Your task to perform on an android device: allow notifications from all sites in the chrome app Image 0: 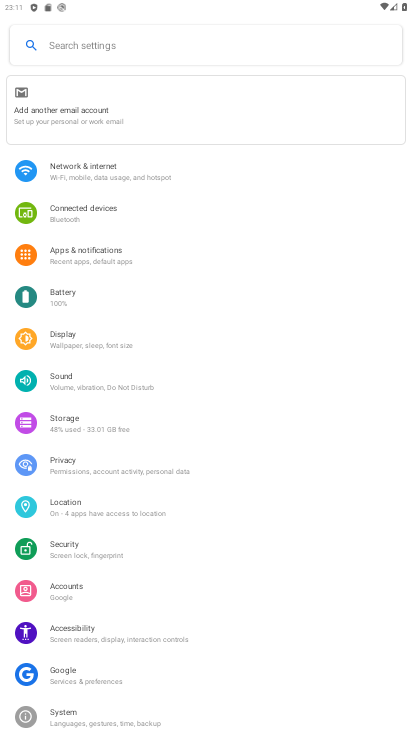
Step 0: press home button
Your task to perform on an android device: allow notifications from all sites in the chrome app Image 1: 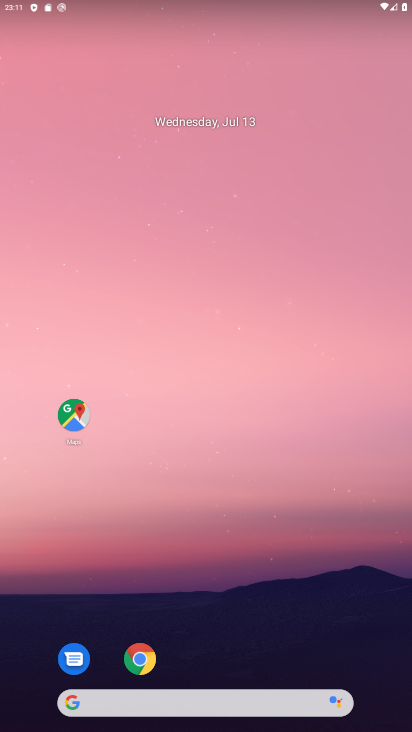
Step 1: click (135, 655)
Your task to perform on an android device: allow notifications from all sites in the chrome app Image 2: 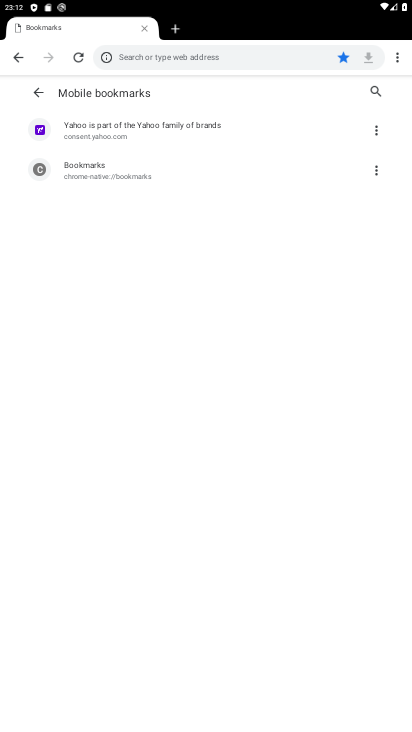
Step 2: click (396, 61)
Your task to perform on an android device: allow notifications from all sites in the chrome app Image 3: 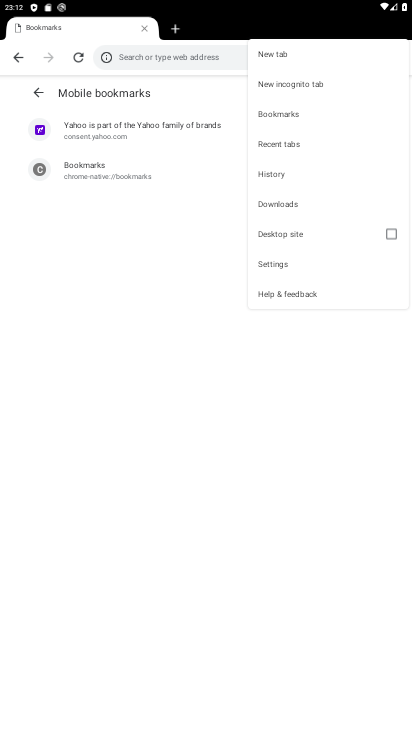
Step 3: click (277, 257)
Your task to perform on an android device: allow notifications from all sites in the chrome app Image 4: 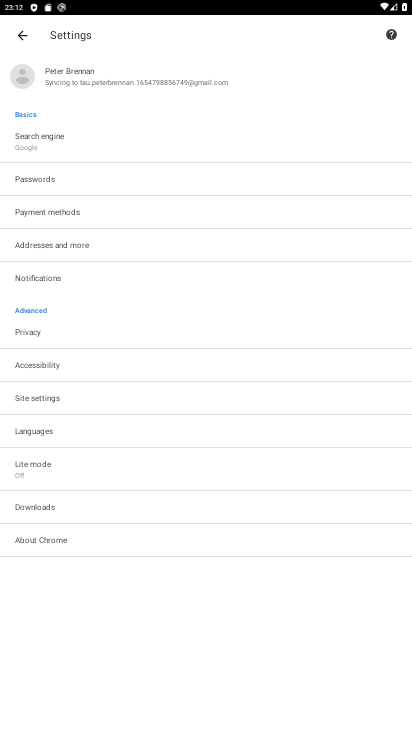
Step 4: click (30, 394)
Your task to perform on an android device: allow notifications from all sites in the chrome app Image 5: 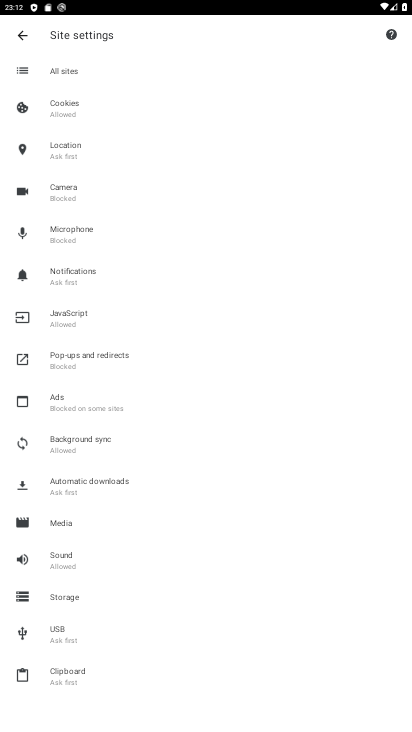
Step 5: click (66, 279)
Your task to perform on an android device: allow notifications from all sites in the chrome app Image 6: 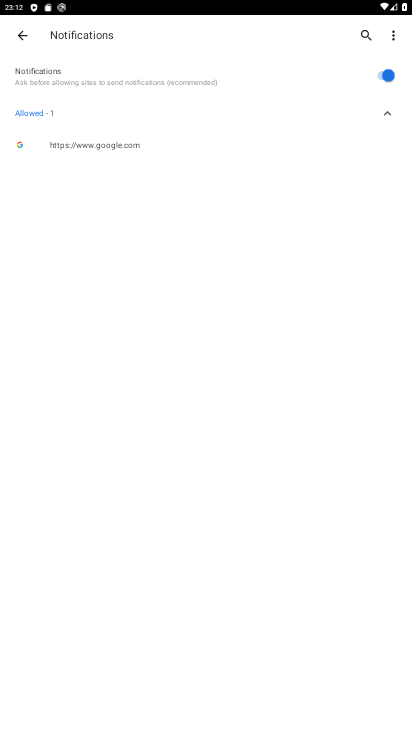
Step 6: task complete